Your task to perform on an android device: add a label to a message in the gmail app Image 0: 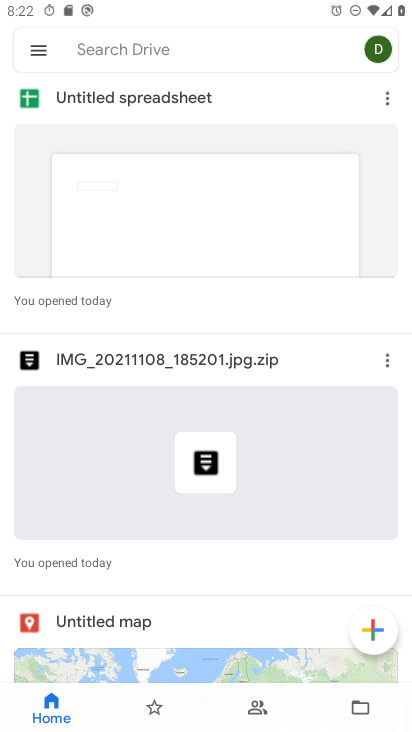
Step 0: press home button
Your task to perform on an android device: add a label to a message in the gmail app Image 1: 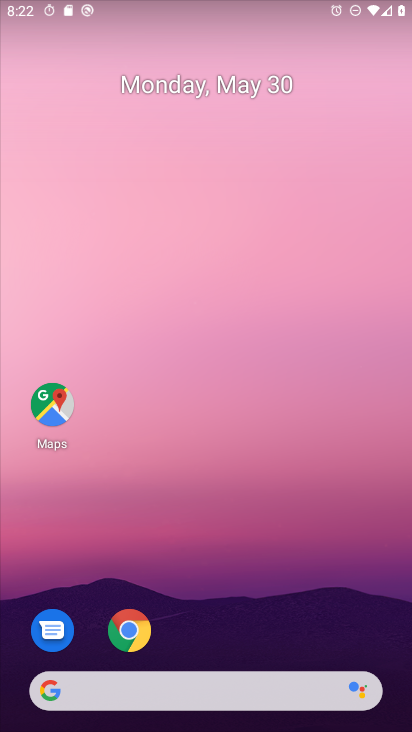
Step 1: drag from (324, 626) to (225, 59)
Your task to perform on an android device: add a label to a message in the gmail app Image 2: 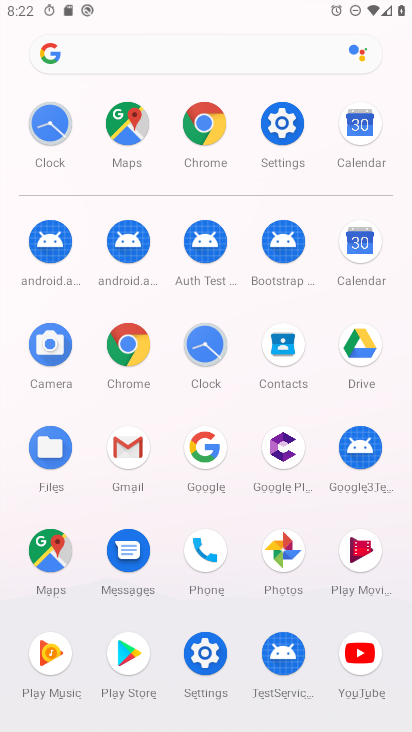
Step 2: click (117, 454)
Your task to perform on an android device: add a label to a message in the gmail app Image 3: 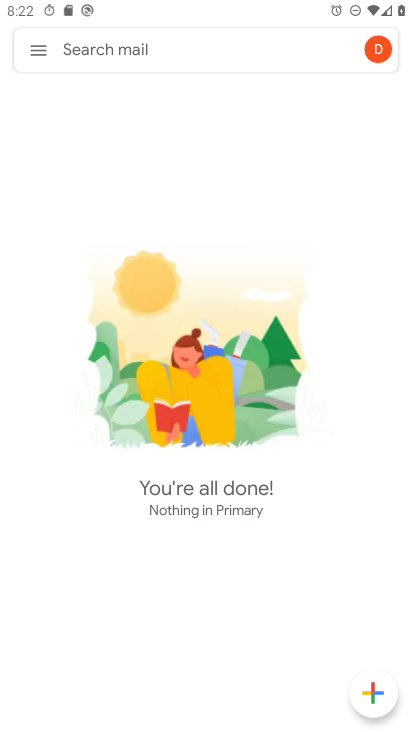
Step 3: task complete